Your task to perform on an android device: Search for bose quietcomfort 35 on costco, select the first entry, add it to the cart, then select checkout. Image 0: 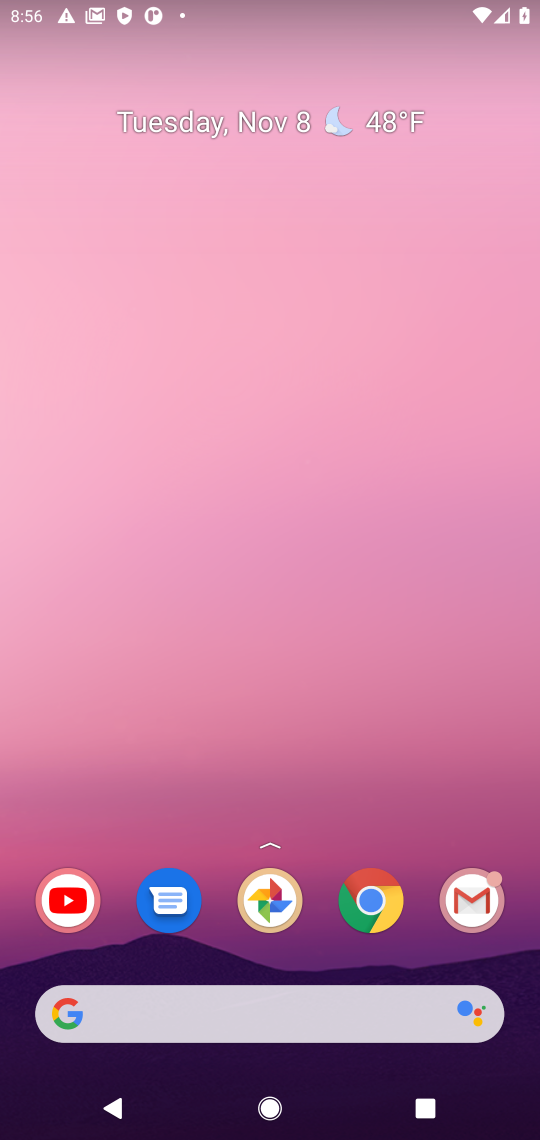
Step 0: click (421, 911)
Your task to perform on an android device: Search for bose quietcomfort 35 on costco, select the first entry, add it to the cart, then select checkout. Image 1: 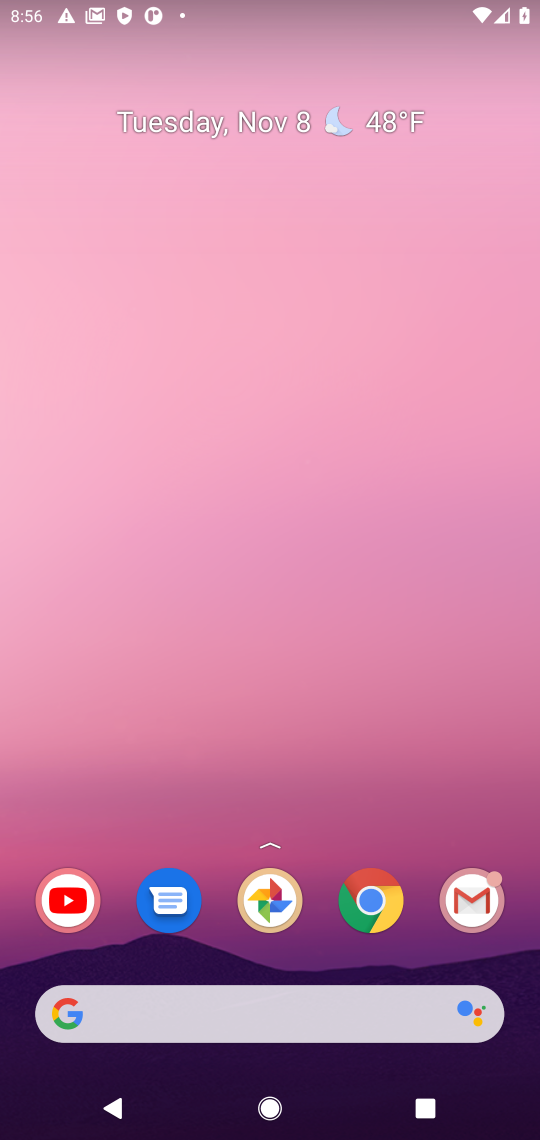
Step 1: click (386, 911)
Your task to perform on an android device: Search for bose quietcomfort 35 on costco, select the first entry, add it to the cart, then select checkout. Image 2: 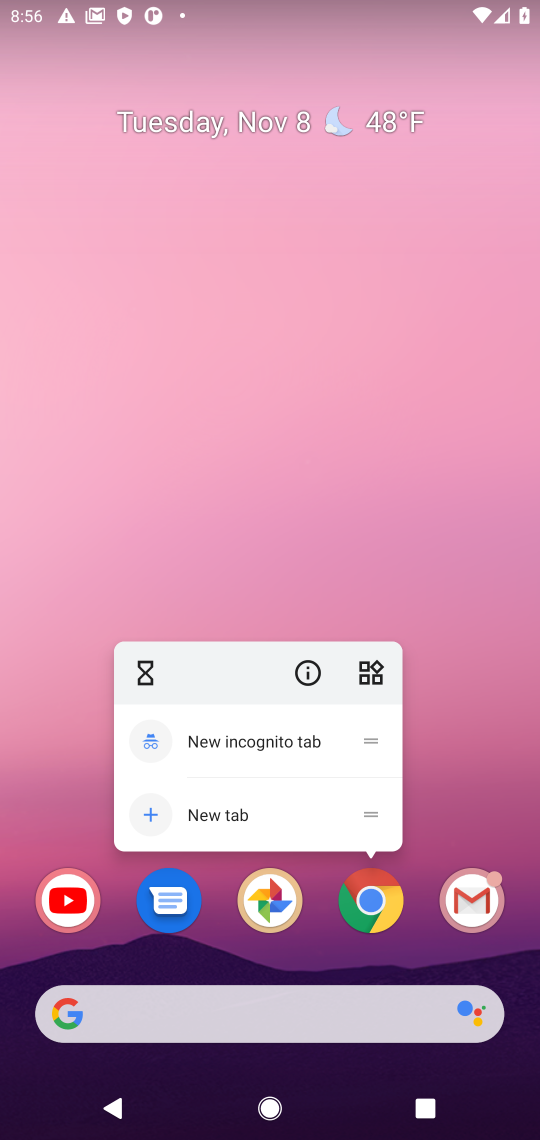
Step 2: click (383, 898)
Your task to perform on an android device: Search for bose quietcomfort 35 on costco, select the first entry, add it to the cart, then select checkout. Image 3: 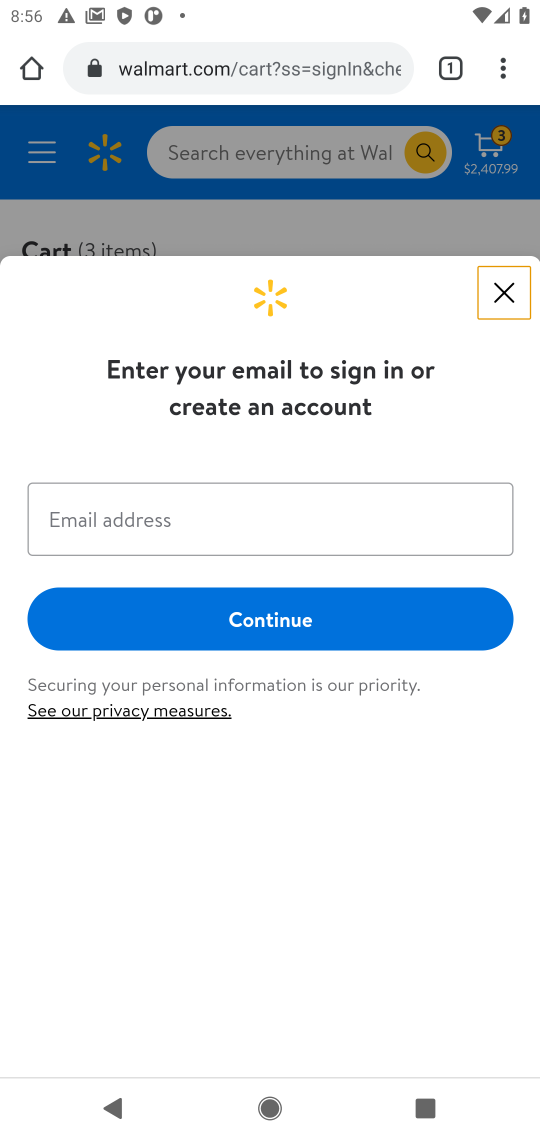
Step 3: click (238, 62)
Your task to perform on an android device: Search for bose quietcomfort 35 on costco, select the first entry, add it to the cart, then select checkout. Image 4: 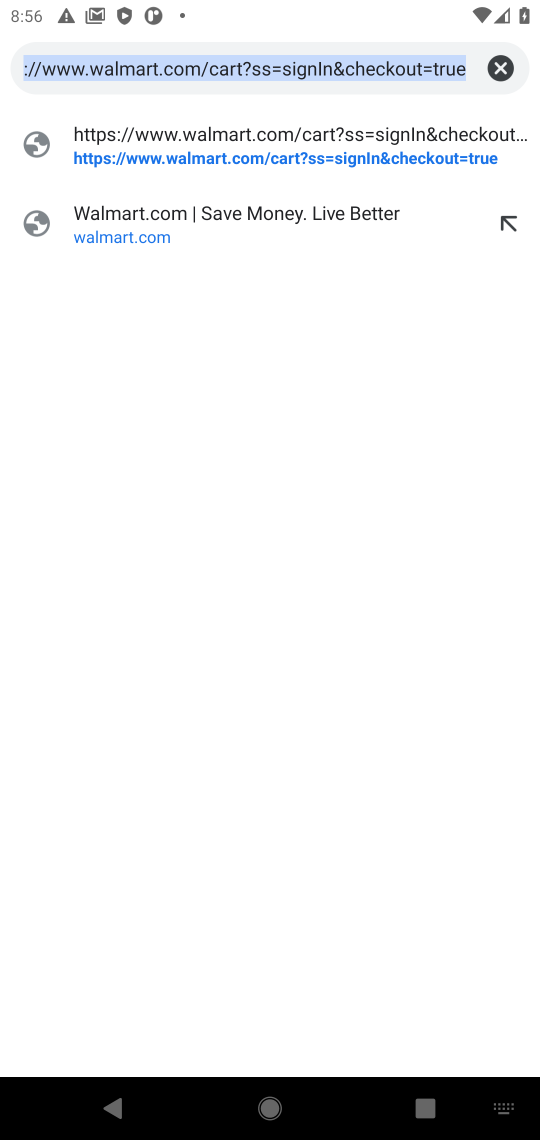
Step 4: click (504, 64)
Your task to perform on an android device: Search for bose quietcomfort 35 on costco, select the first entry, add it to the cart, then select checkout. Image 5: 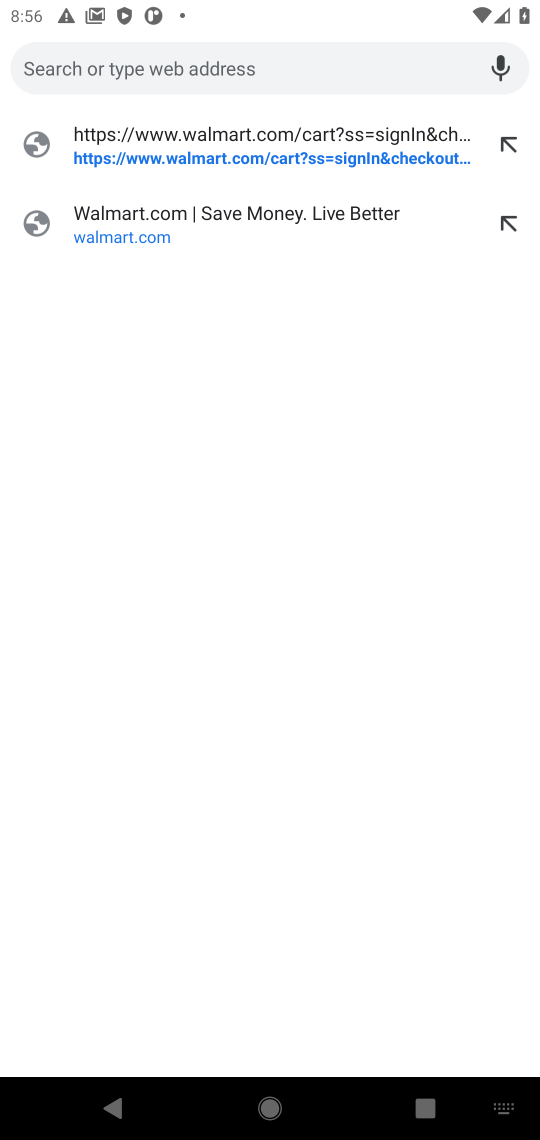
Step 5: type "costco"
Your task to perform on an android device: Search for bose quietcomfort 35 on costco, select the first entry, add it to the cart, then select checkout. Image 6: 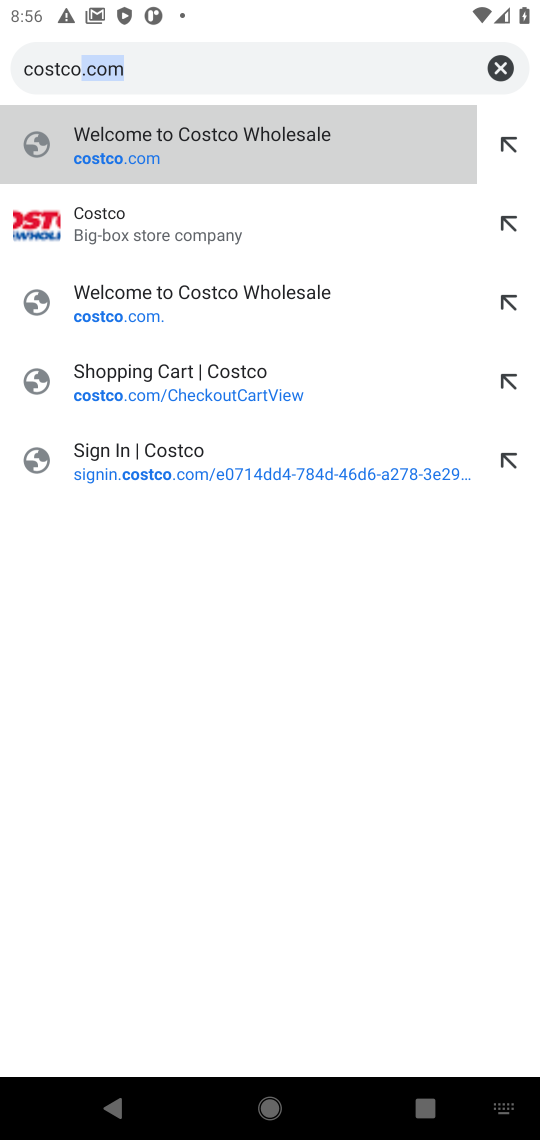
Step 6: type ""
Your task to perform on an android device: Search for bose quietcomfort 35 on costco, select the first entry, add it to the cart, then select checkout. Image 7: 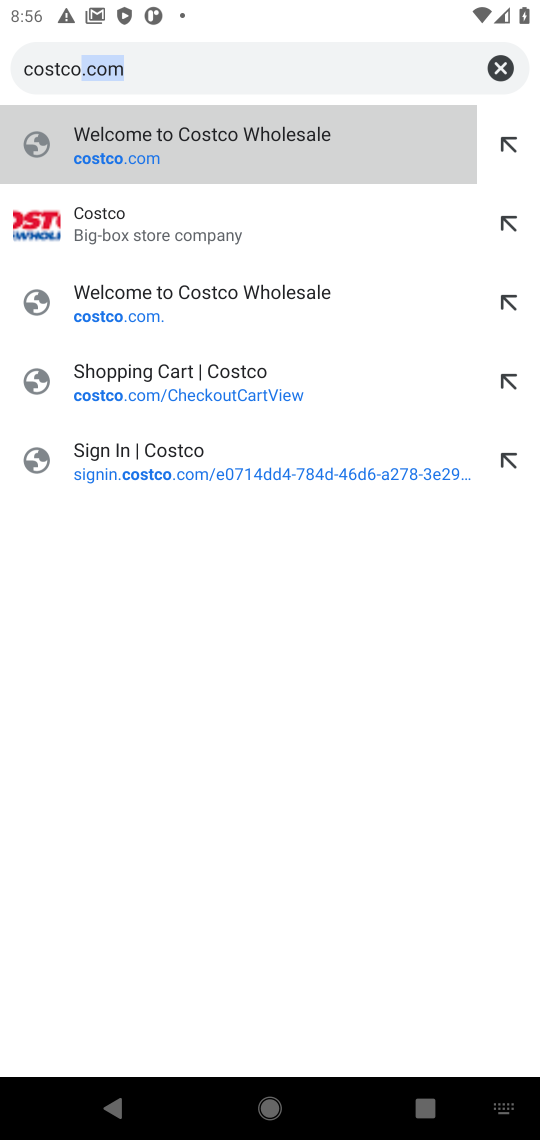
Step 7: click (65, 221)
Your task to perform on an android device: Search for bose quietcomfort 35 on costco, select the first entry, add it to the cart, then select checkout. Image 8: 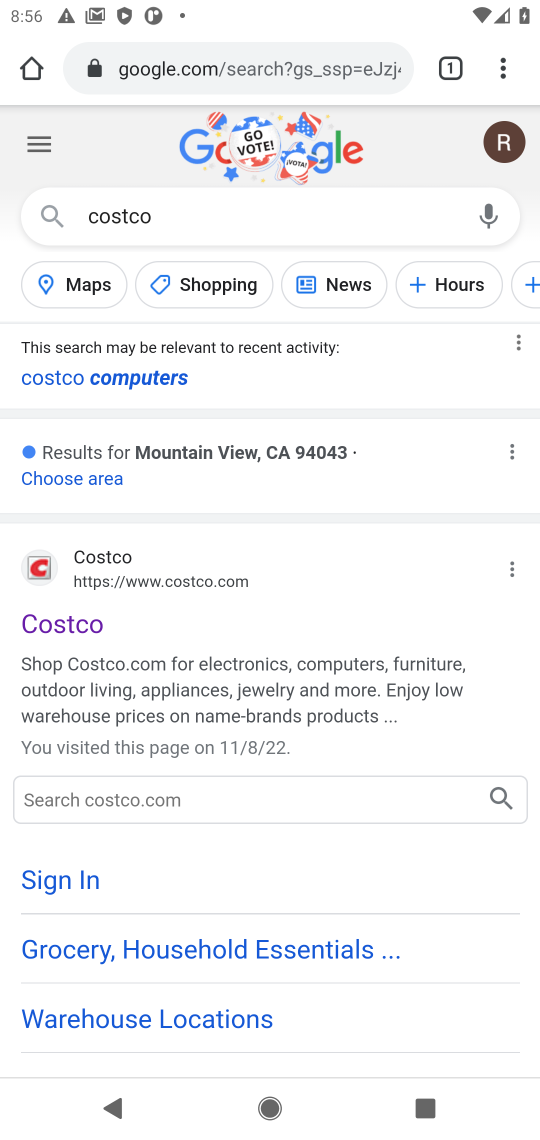
Step 8: click (70, 611)
Your task to perform on an android device: Search for bose quietcomfort 35 on costco, select the first entry, add it to the cart, then select checkout. Image 9: 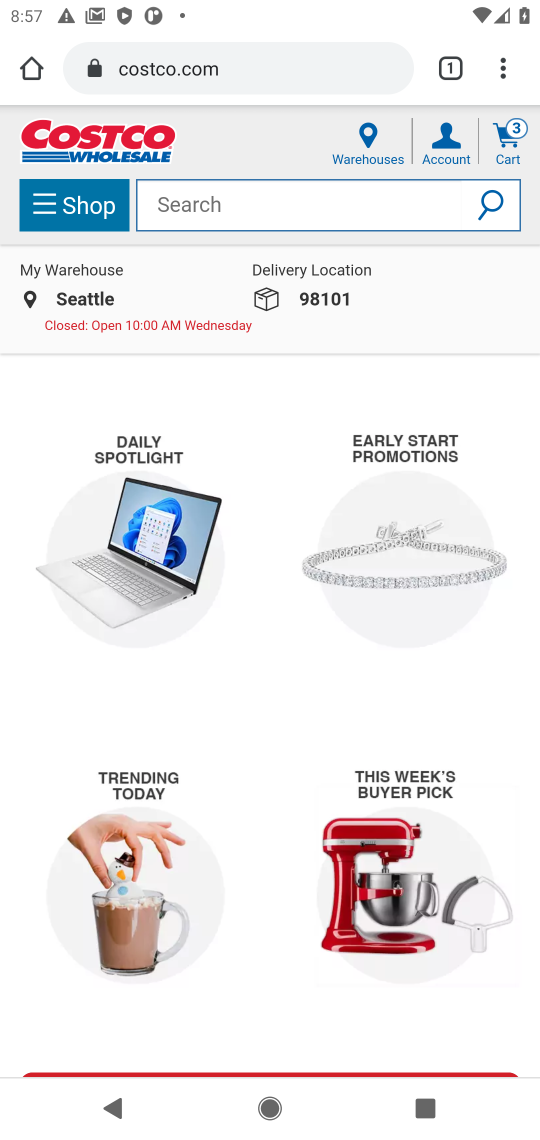
Step 9: click (224, 203)
Your task to perform on an android device: Search for bose quietcomfort 35 on costco, select the first entry, add it to the cart, then select checkout. Image 10: 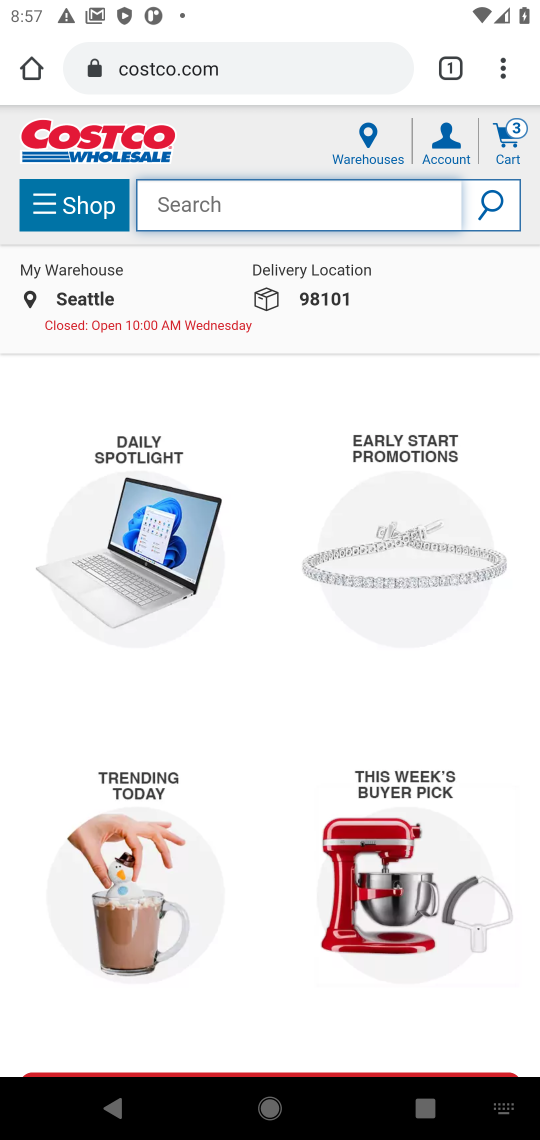
Step 10: type "bose quietcomfort 35"
Your task to perform on an android device: Search for bose quietcomfort 35 on costco, select the first entry, add it to the cart, then select checkout. Image 11: 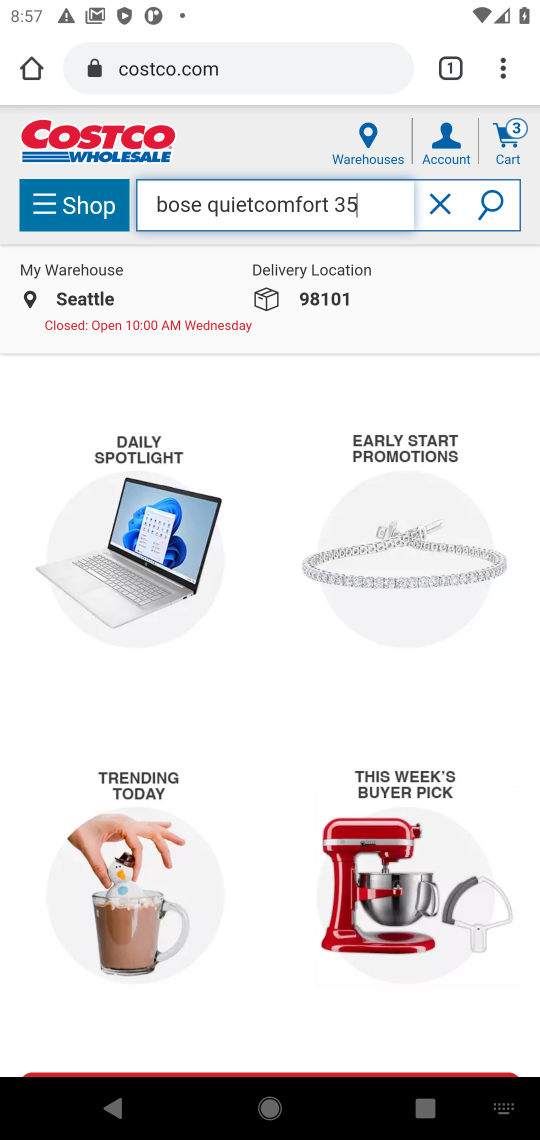
Step 11: type ""
Your task to perform on an android device: Search for bose quietcomfort 35 on costco, select the first entry, add it to the cart, then select checkout. Image 12: 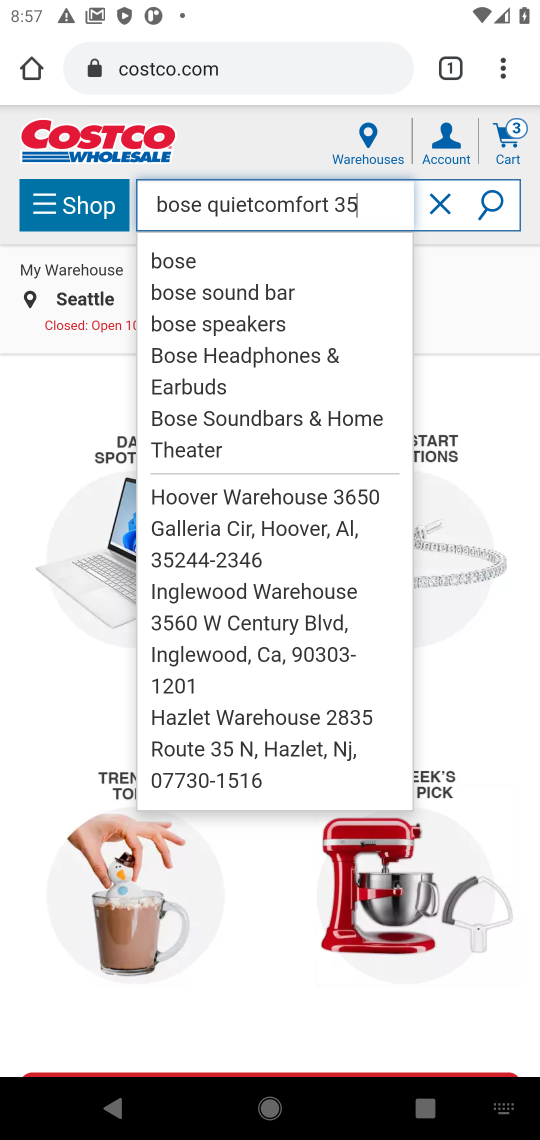
Step 12: click (185, 352)
Your task to perform on an android device: Search for bose quietcomfort 35 on costco, select the first entry, add it to the cart, then select checkout. Image 13: 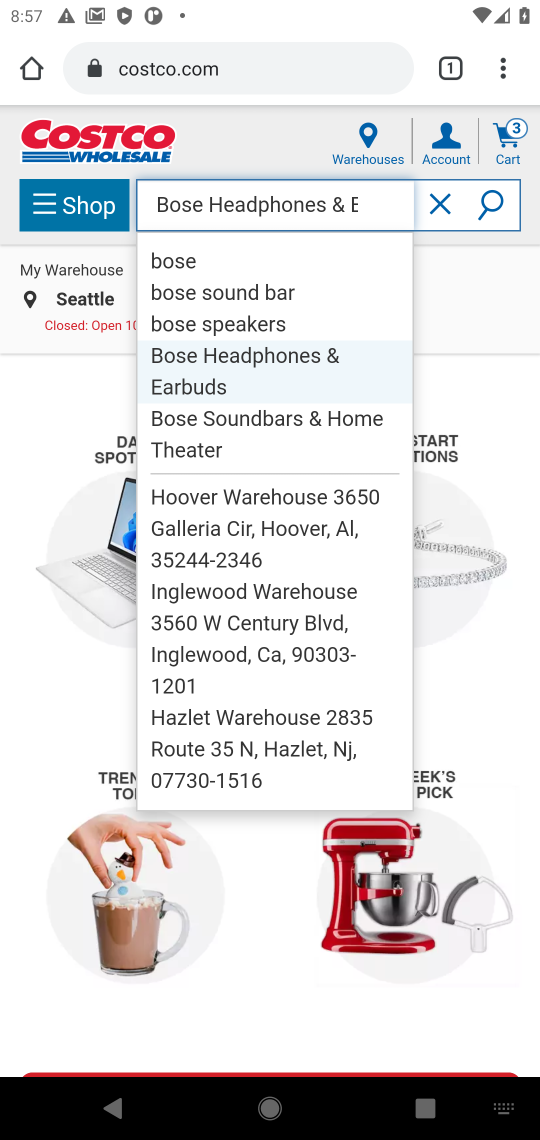
Step 13: click (228, 380)
Your task to perform on an android device: Search for bose quietcomfort 35 on costco, select the first entry, add it to the cart, then select checkout. Image 14: 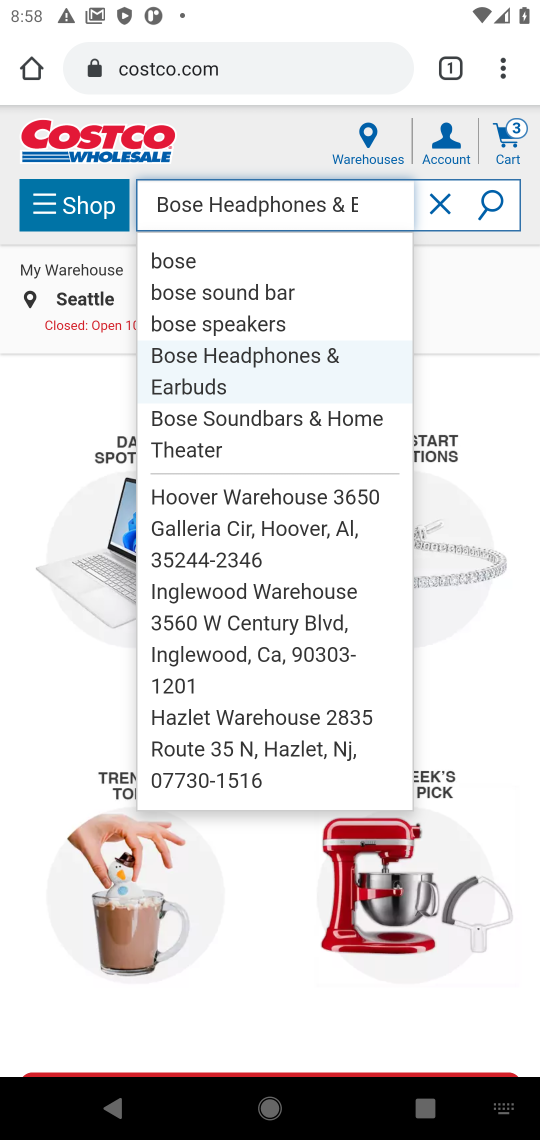
Step 14: click (230, 424)
Your task to perform on an android device: Search for bose quietcomfort 35 on costco, select the first entry, add it to the cart, then select checkout. Image 15: 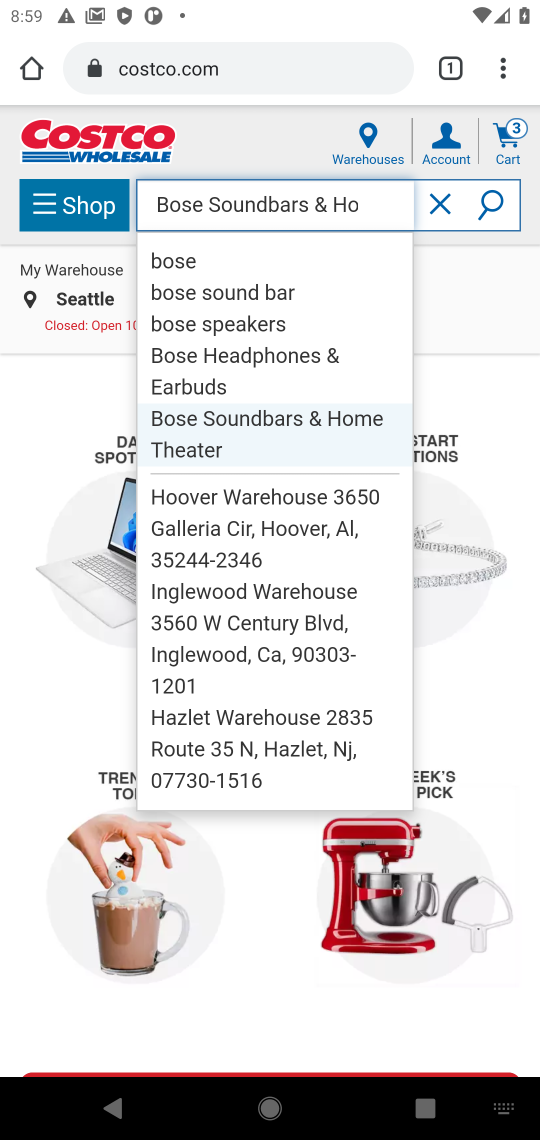
Step 15: click (198, 450)
Your task to perform on an android device: Search for bose quietcomfort 35 on costco, select the first entry, add it to the cart, then select checkout. Image 16: 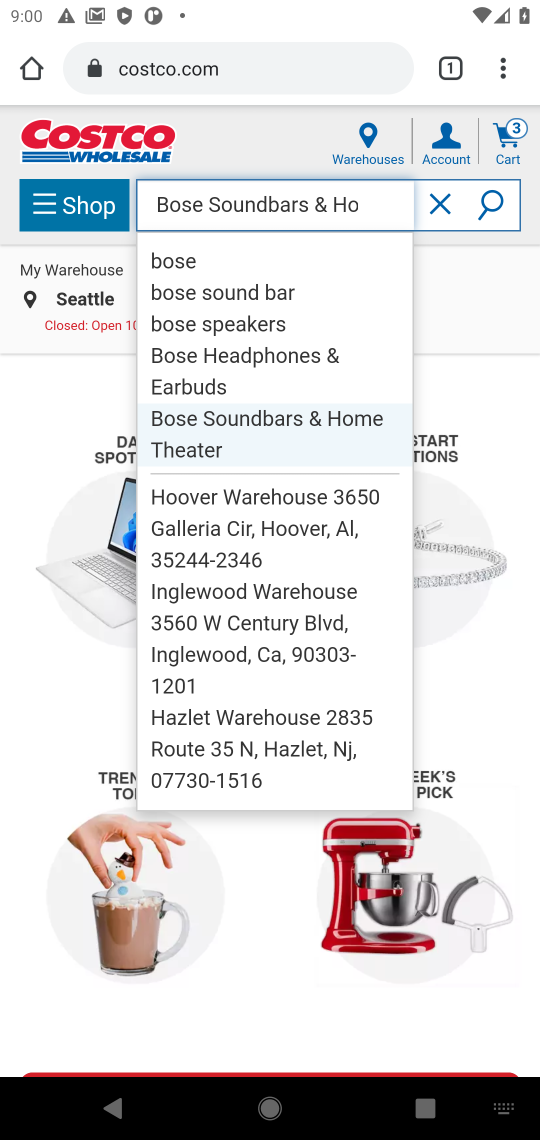
Step 16: click (222, 434)
Your task to perform on an android device: Search for bose quietcomfort 35 on costco, select the first entry, add it to the cart, then select checkout. Image 17: 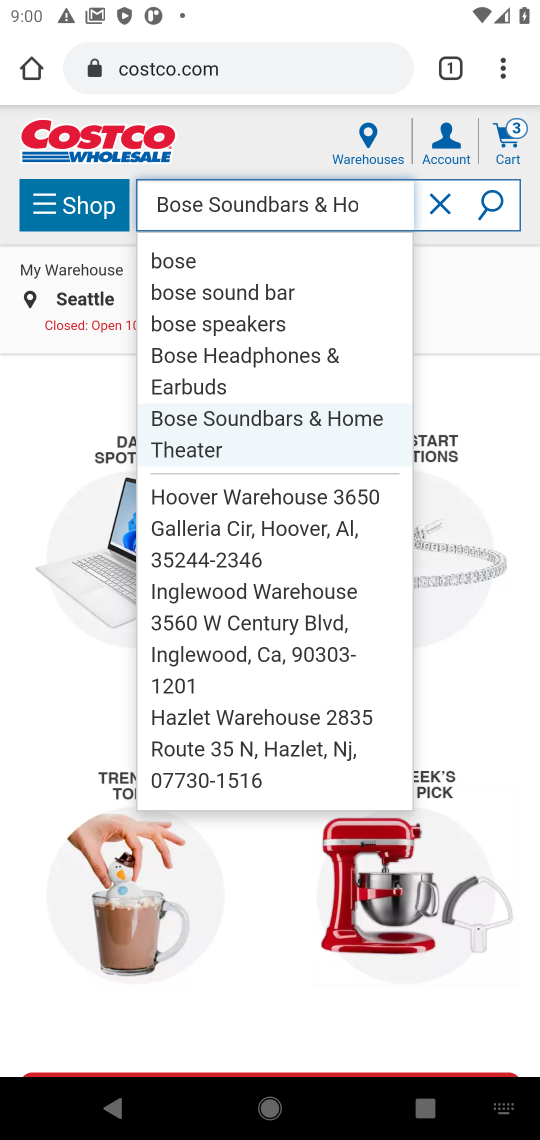
Step 17: click (234, 440)
Your task to perform on an android device: Search for bose quietcomfort 35 on costco, select the first entry, add it to the cart, then select checkout. Image 18: 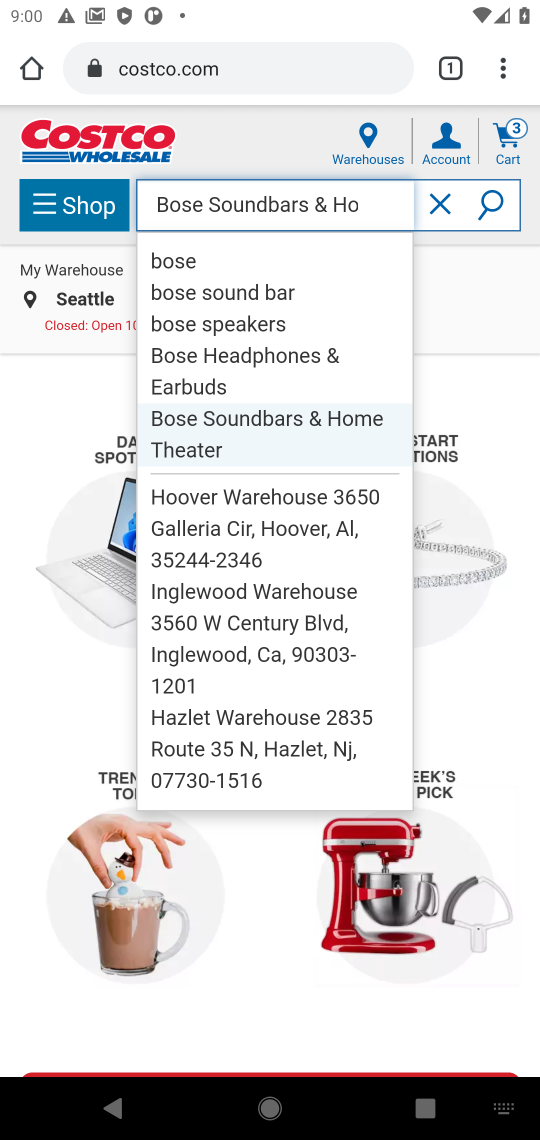
Step 18: click (231, 425)
Your task to perform on an android device: Search for bose quietcomfort 35 on costco, select the first entry, add it to the cart, then select checkout. Image 19: 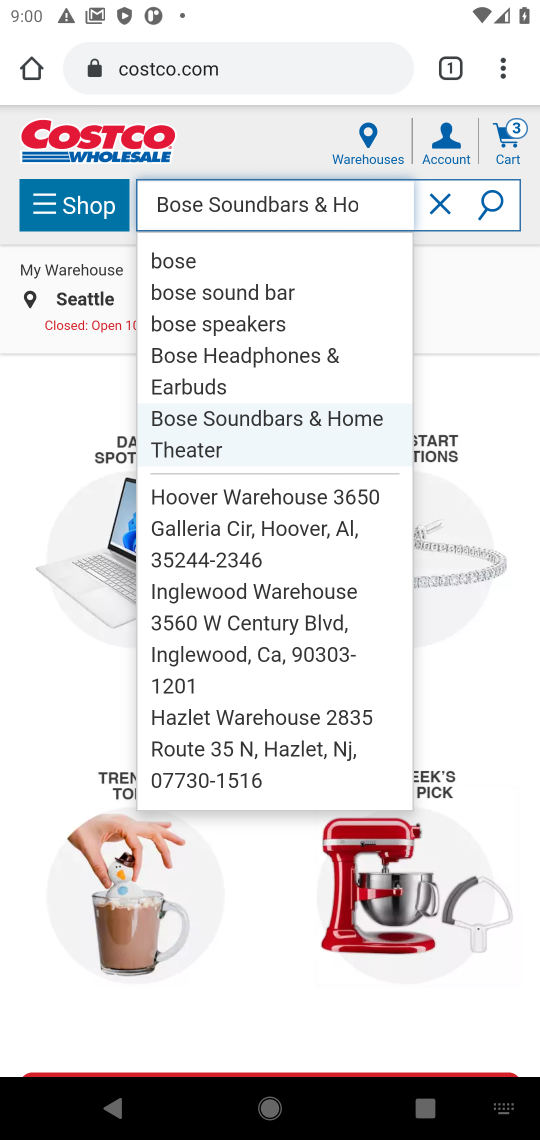
Step 19: click (275, 445)
Your task to perform on an android device: Search for bose quietcomfort 35 on costco, select the first entry, add it to the cart, then select checkout. Image 20: 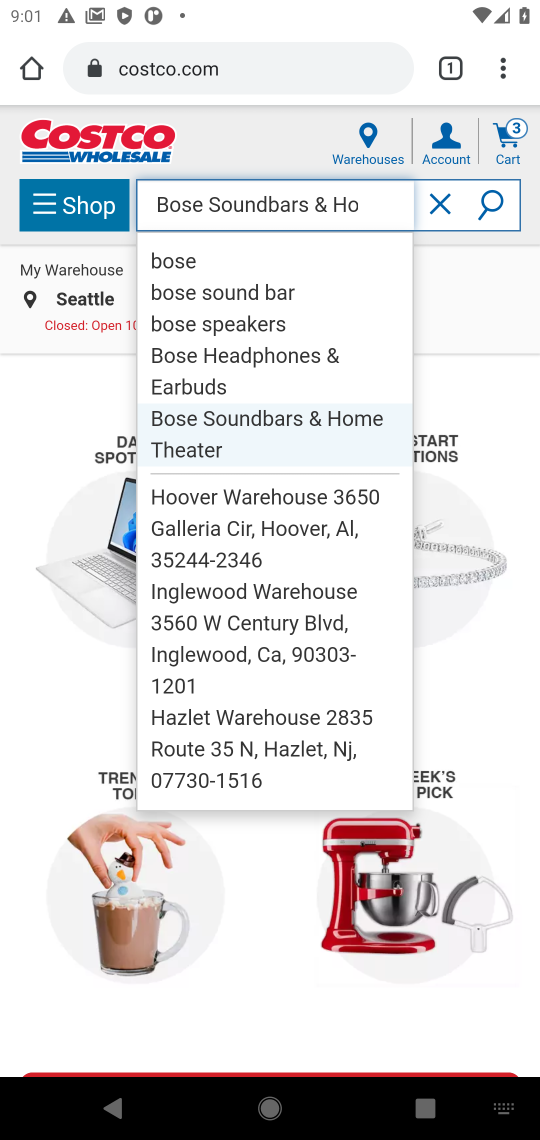
Step 20: click (263, 445)
Your task to perform on an android device: Search for bose quietcomfort 35 on costco, select the first entry, add it to the cart, then select checkout. Image 21: 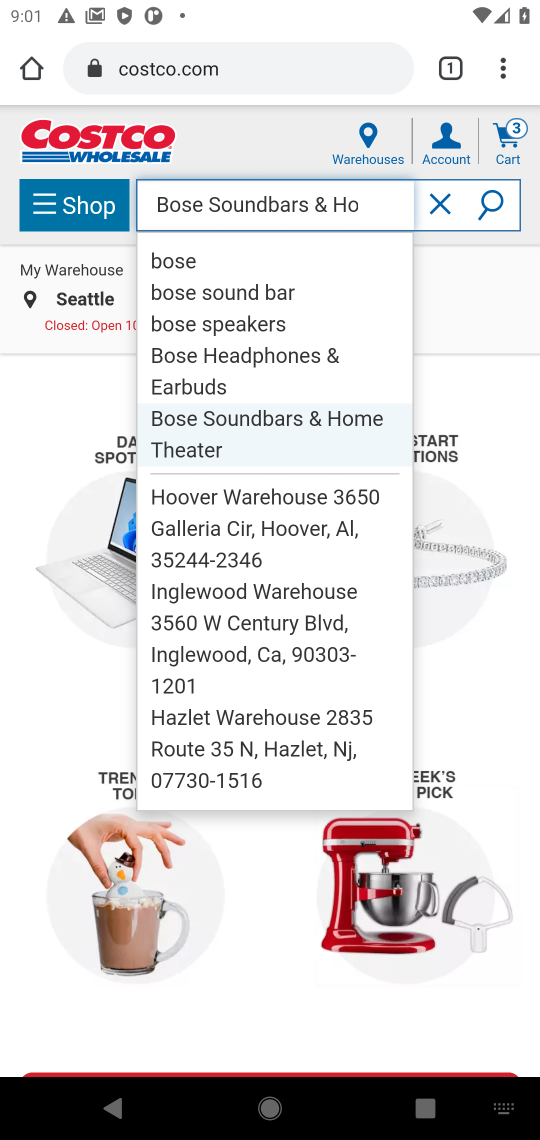
Step 21: click (249, 437)
Your task to perform on an android device: Search for bose quietcomfort 35 on costco, select the first entry, add it to the cart, then select checkout. Image 22: 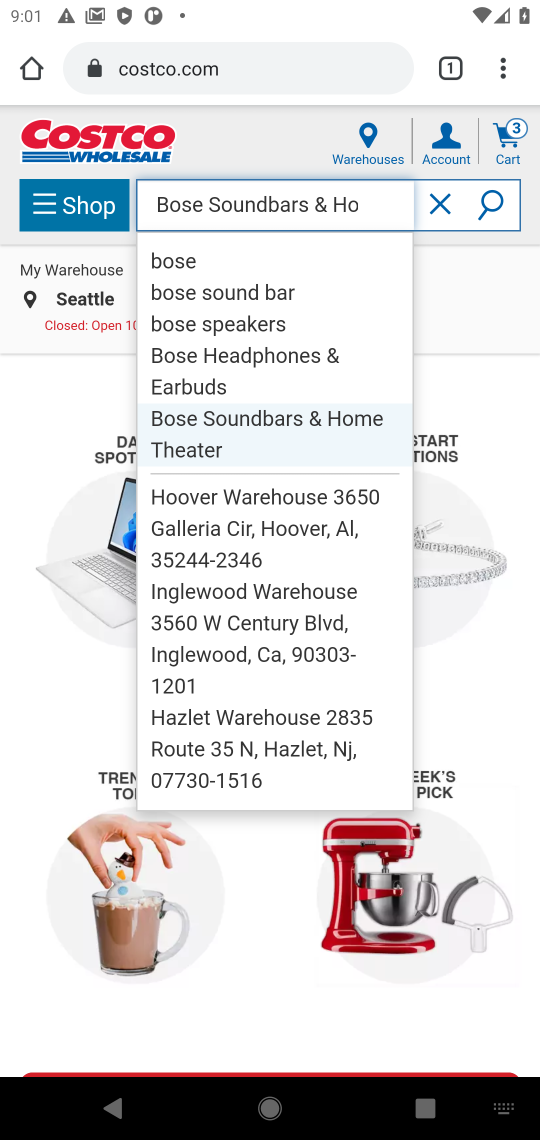
Step 22: click (246, 437)
Your task to perform on an android device: Search for bose quietcomfort 35 on costco, select the first entry, add it to the cart, then select checkout. Image 23: 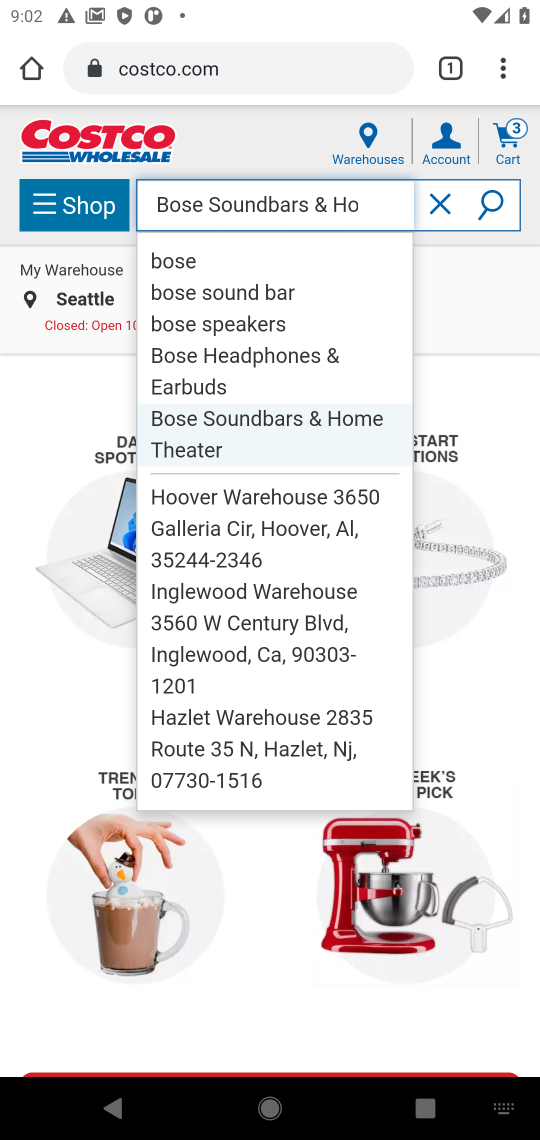
Step 23: click (269, 427)
Your task to perform on an android device: Search for bose quietcomfort 35 on costco, select the first entry, add it to the cart, then select checkout. Image 24: 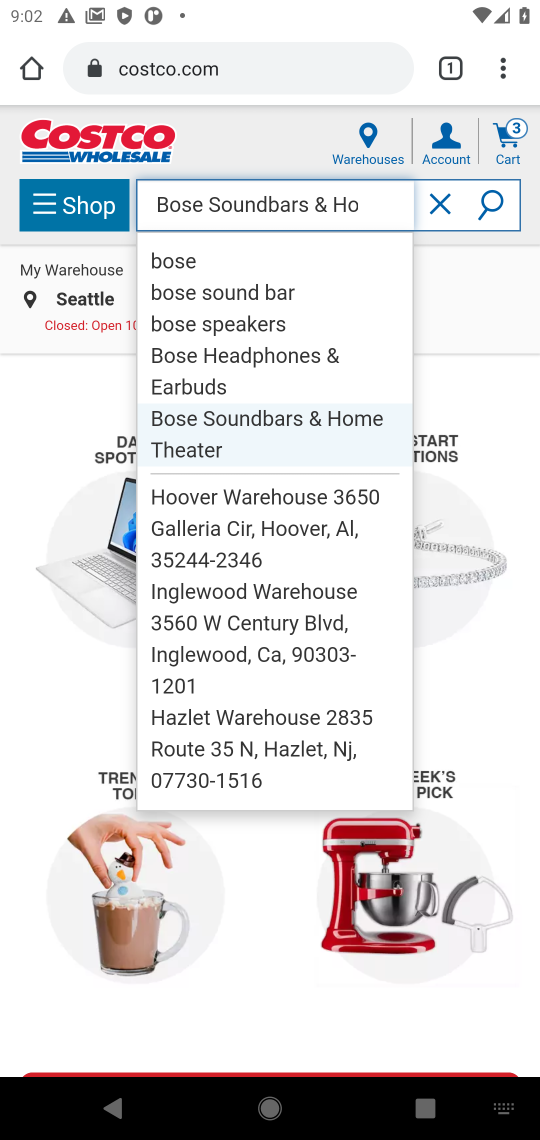
Step 24: click (216, 447)
Your task to perform on an android device: Search for bose quietcomfort 35 on costco, select the first entry, add it to the cart, then select checkout. Image 25: 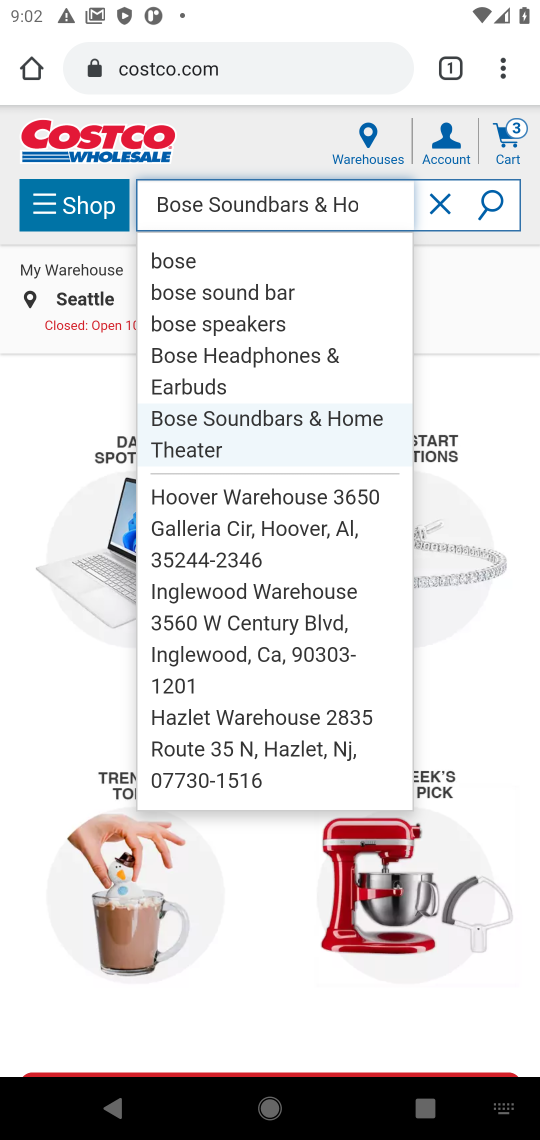
Step 25: click (237, 430)
Your task to perform on an android device: Search for bose quietcomfort 35 on costco, select the first entry, add it to the cart, then select checkout. Image 26: 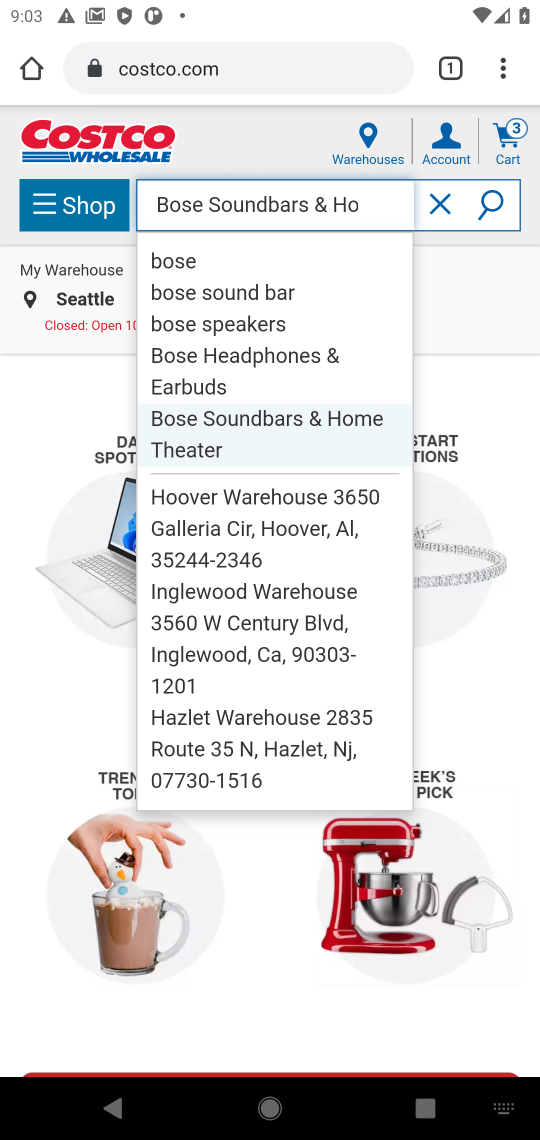
Step 26: click (245, 440)
Your task to perform on an android device: Search for bose quietcomfort 35 on costco, select the first entry, add it to the cart, then select checkout. Image 27: 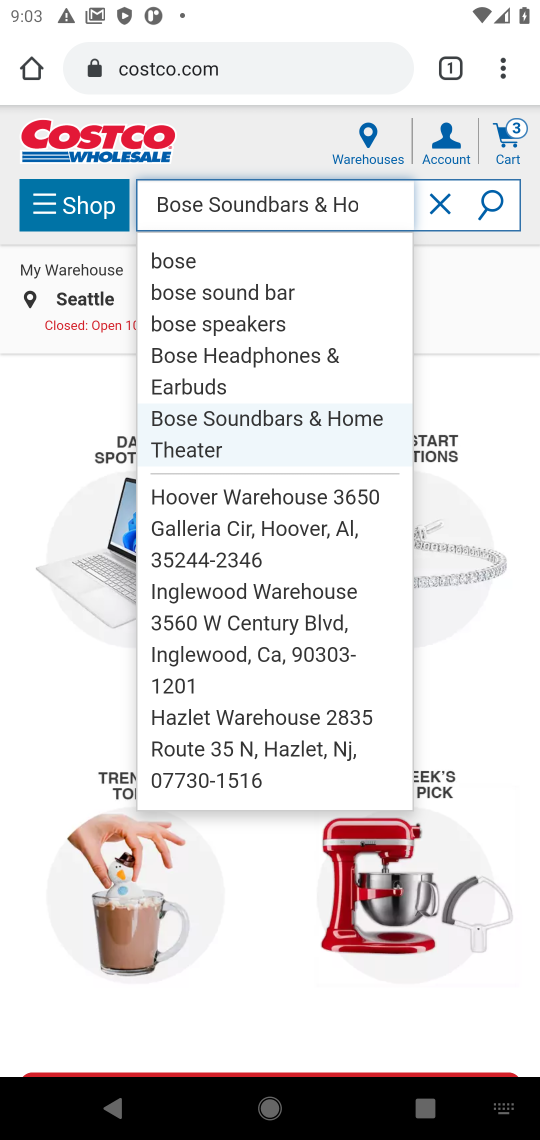
Step 27: click (246, 439)
Your task to perform on an android device: Search for bose quietcomfort 35 on costco, select the first entry, add it to the cart, then select checkout. Image 28: 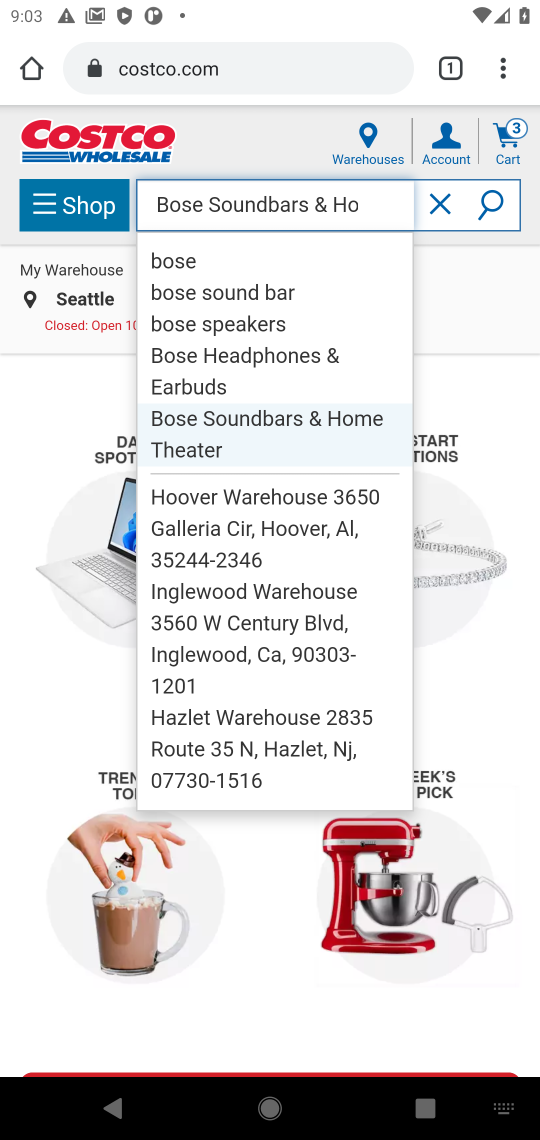
Step 28: click (245, 438)
Your task to perform on an android device: Search for bose quietcomfort 35 on costco, select the first entry, add it to the cart, then select checkout. Image 29: 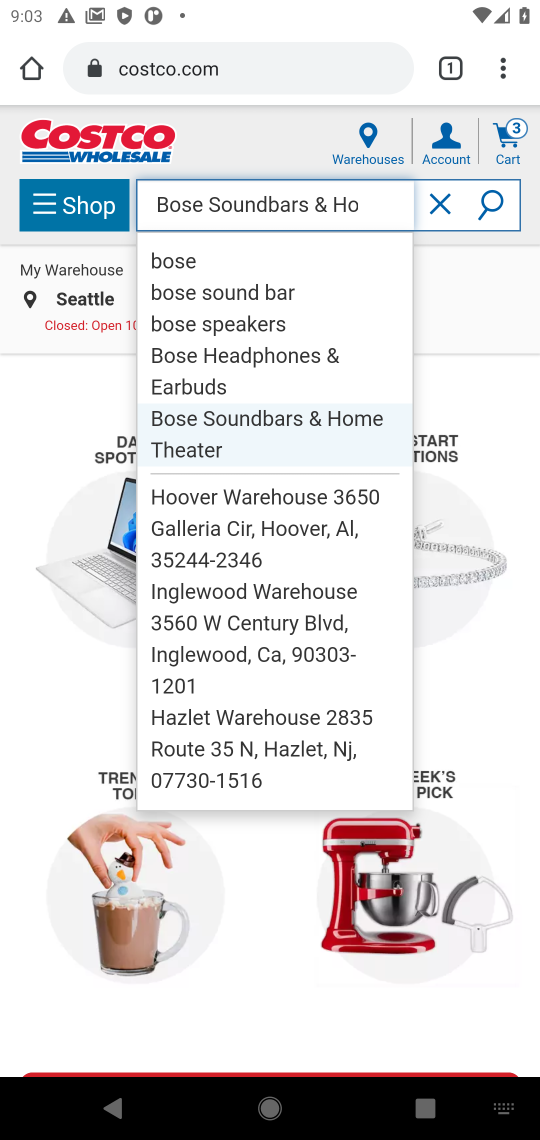
Step 29: click (245, 438)
Your task to perform on an android device: Search for bose quietcomfort 35 on costco, select the first entry, add it to the cart, then select checkout. Image 30: 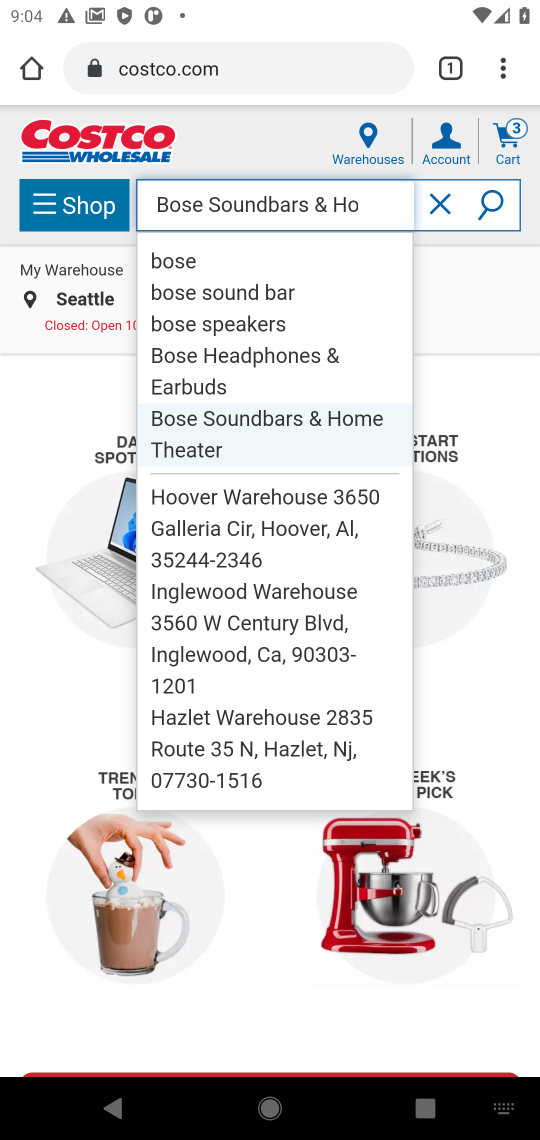
Step 30: click (243, 440)
Your task to perform on an android device: Search for bose quietcomfort 35 on costco, select the first entry, add it to the cart, then select checkout. Image 31: 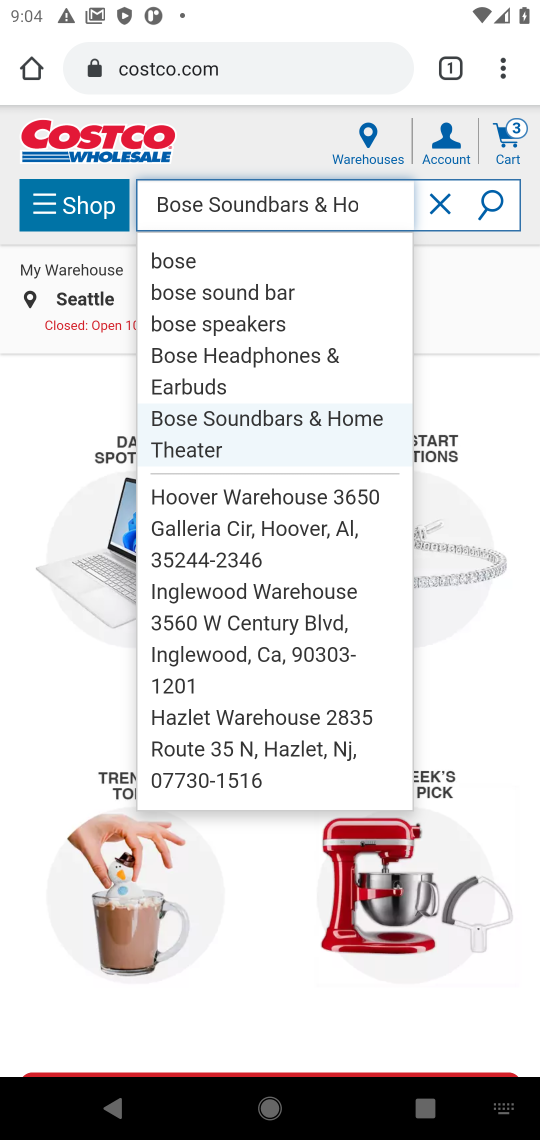
Step 31: click (243, 444)
Your task to perform on an android device: Search for bose quietcomfort 35 on costco, select the first entry, add it to the cart, then select checkout. Image 32: 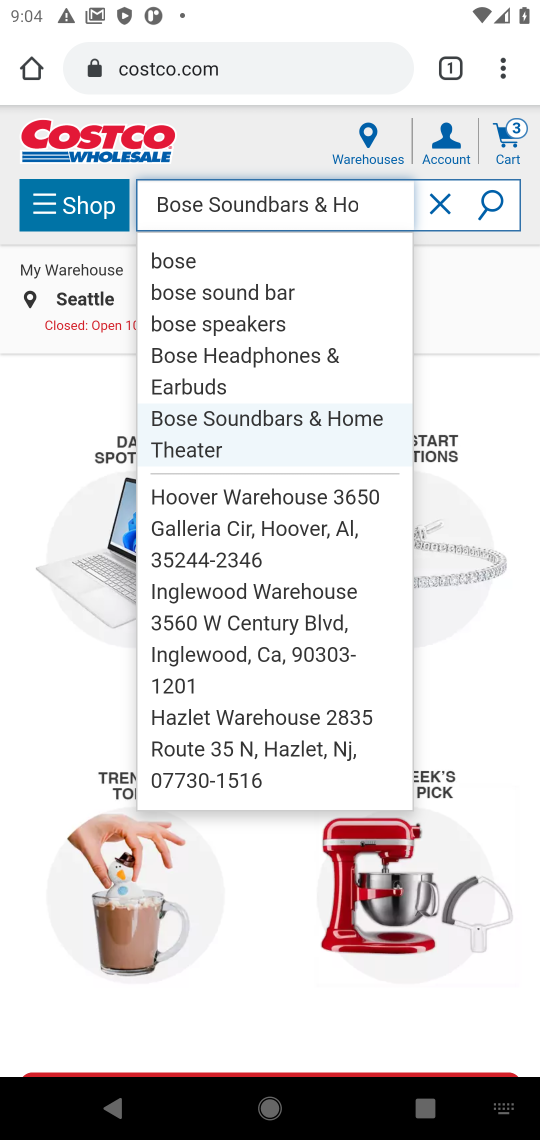
Step 32: click (261, 422)
Your task to perform on an android device: Search for bose quietcomfort 35 on costco, select the first entry, add it to the cart, then select checkout. Image 33: 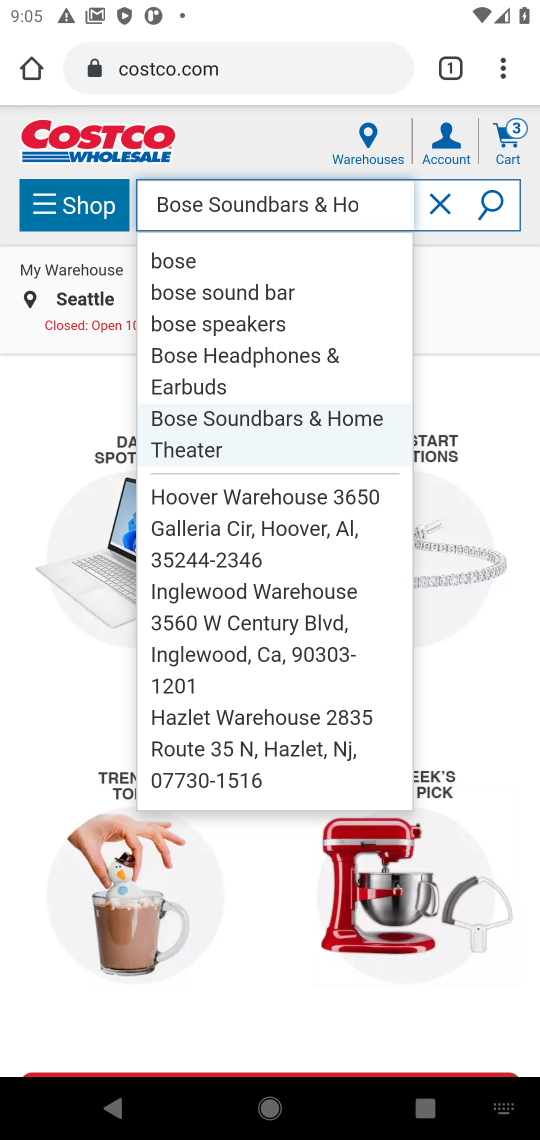
Step 33: click (242, 447)
Your task to perform on an android device: Search for bose quietcomfort 35 on costco, select the first entry, add it to the cart, then select checkout. Image 34: 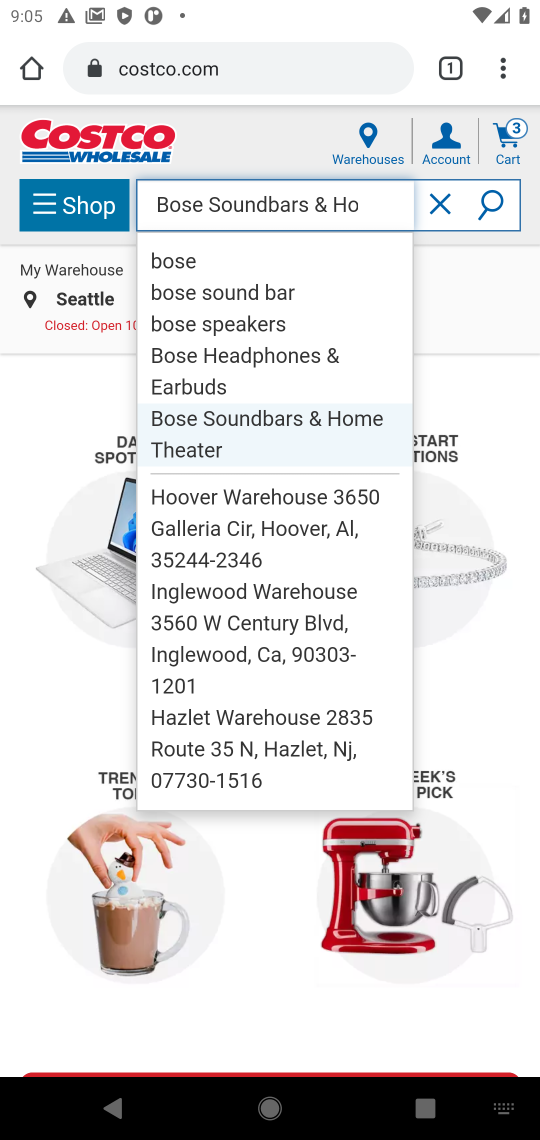
Step 34: click (245, 445)
Your task to perform on an android device: Search for bose quietcomfort 35 on costco, select the first entry, add it to the cart, then select checkout. Image 35: 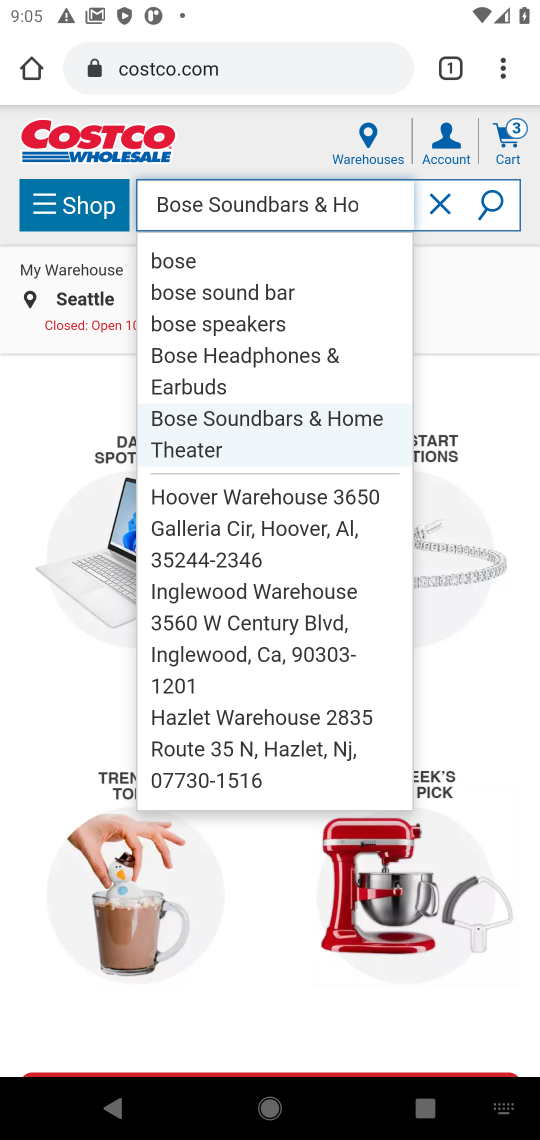
Step 35: click (246, 447)
Your task to perform on an android device: Search for bose quietcomfort 35 on costco, select the first entry, add it to the cart, then select checkout. Image 36: 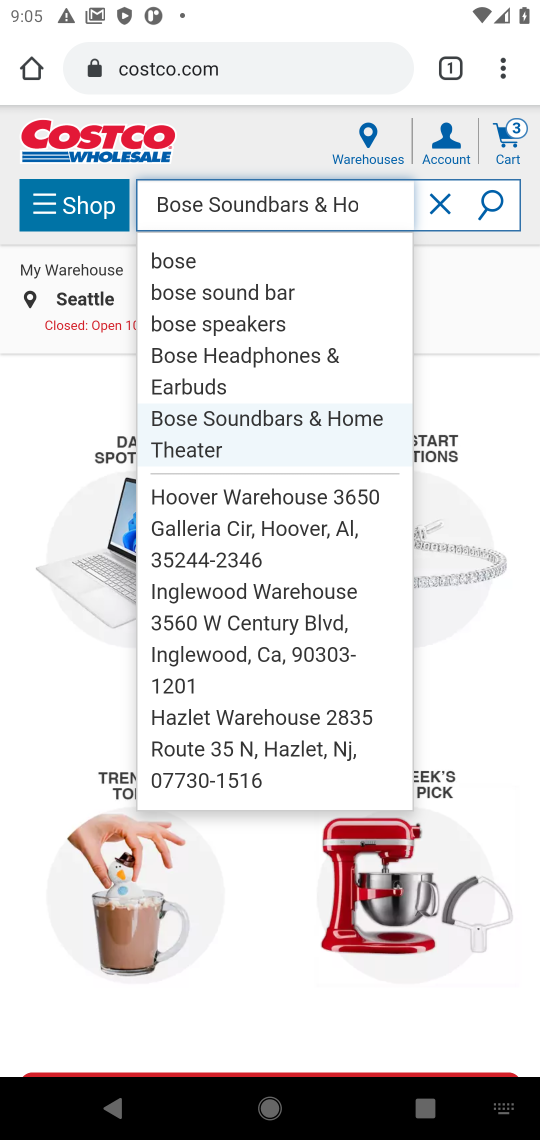
Step 36: press back button
Your task to perform on an android device: Search for bose quietcomfort 35 on costco, select the first entry, add it to the cart, then select checkout. Image 37: 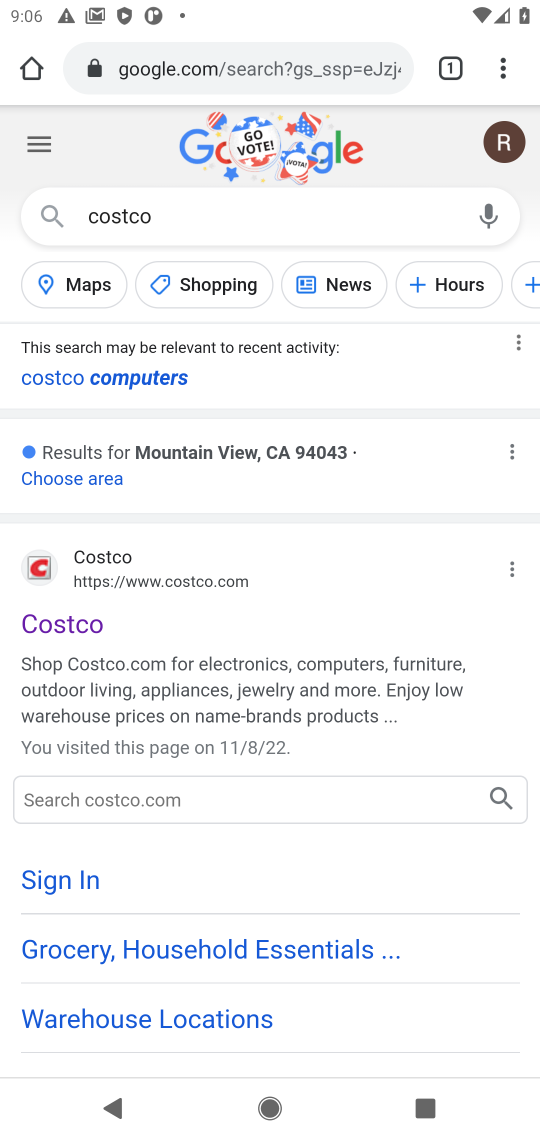
Step 37: click (48, 622)
Your task to perform on an android device: Search for bose quietcomfort 35 on costco, select the first entry, add it to the cart, then select checkout. Image 38: 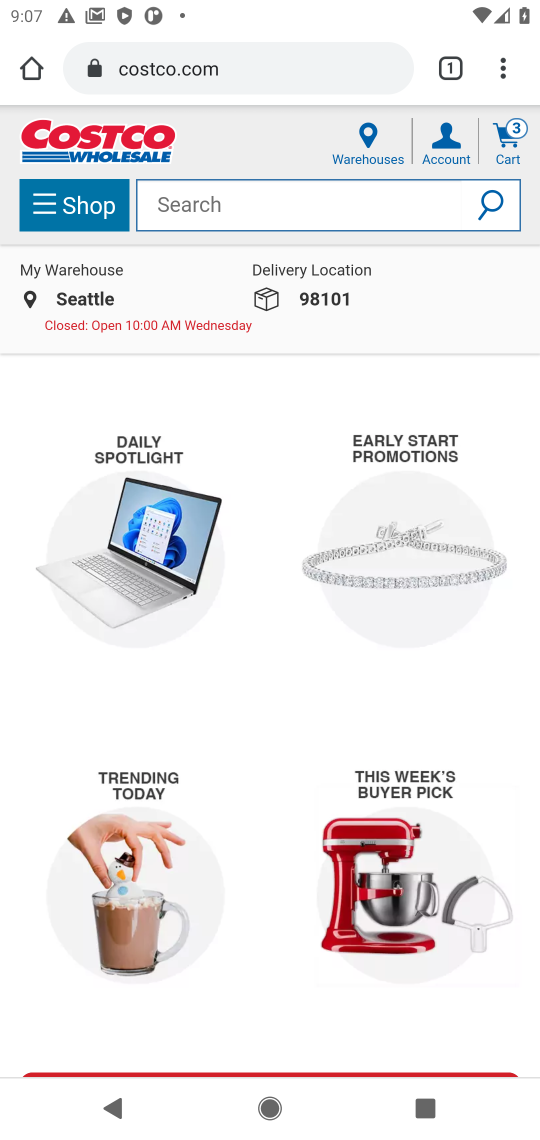
Step 38: click (266, 210)
Your task to perform on an android device: Search for bose quietcomfort 35 on costco, select the first entry, add it to the cart, then select checkout. Image 39: 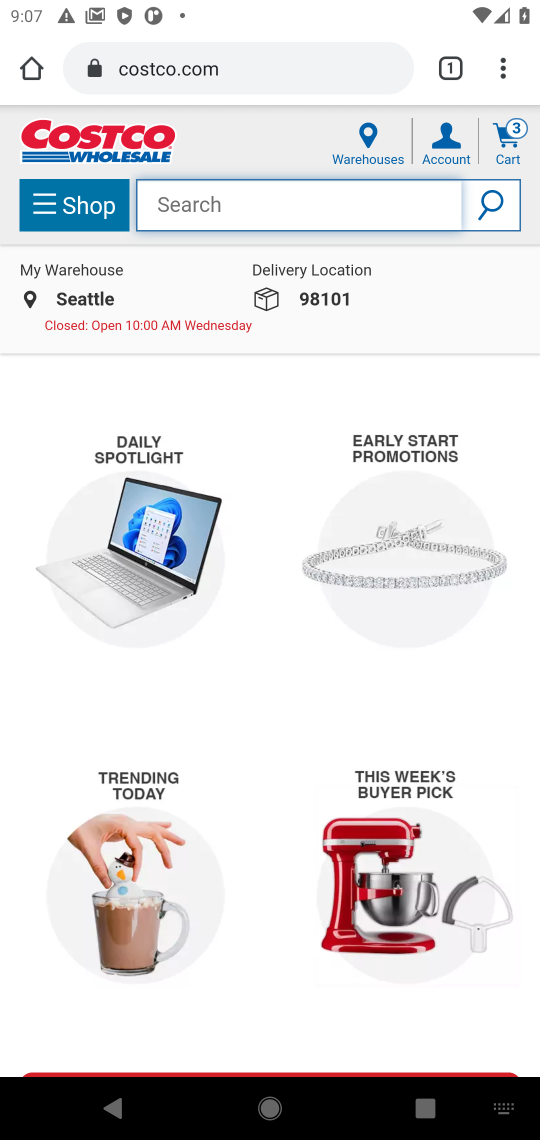
Step 39: type "bose quietcomfort 35"
Your task to perform on an android device: Search for bose quietcomfort 35 on costco, select the first entry, add it to the cart, then select checkout. Image 40: 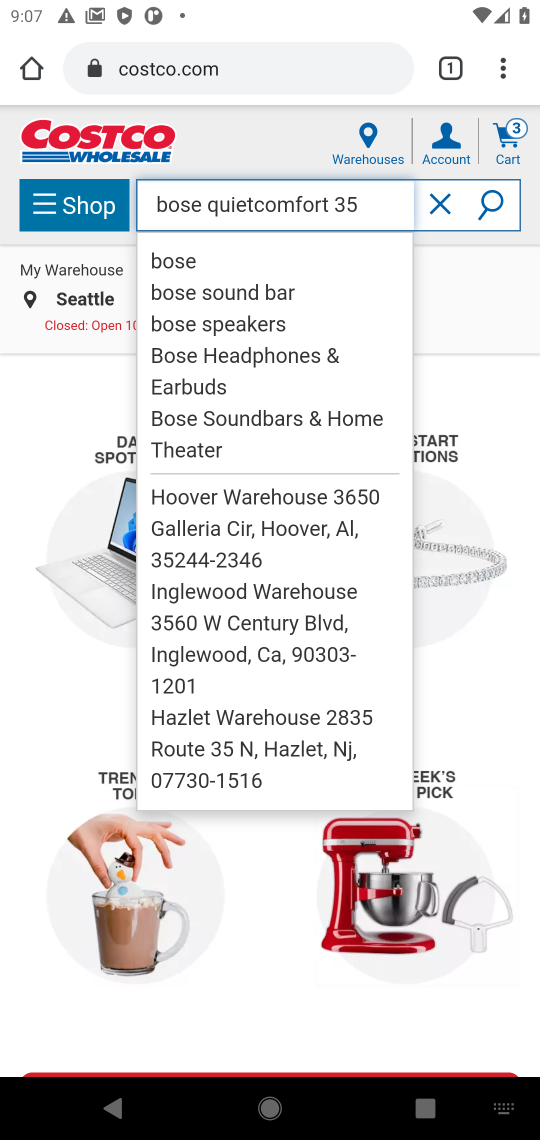
Step 40: task complete